Your task to perform on an android device: Set the phone to "Do not disturb". Image 0: 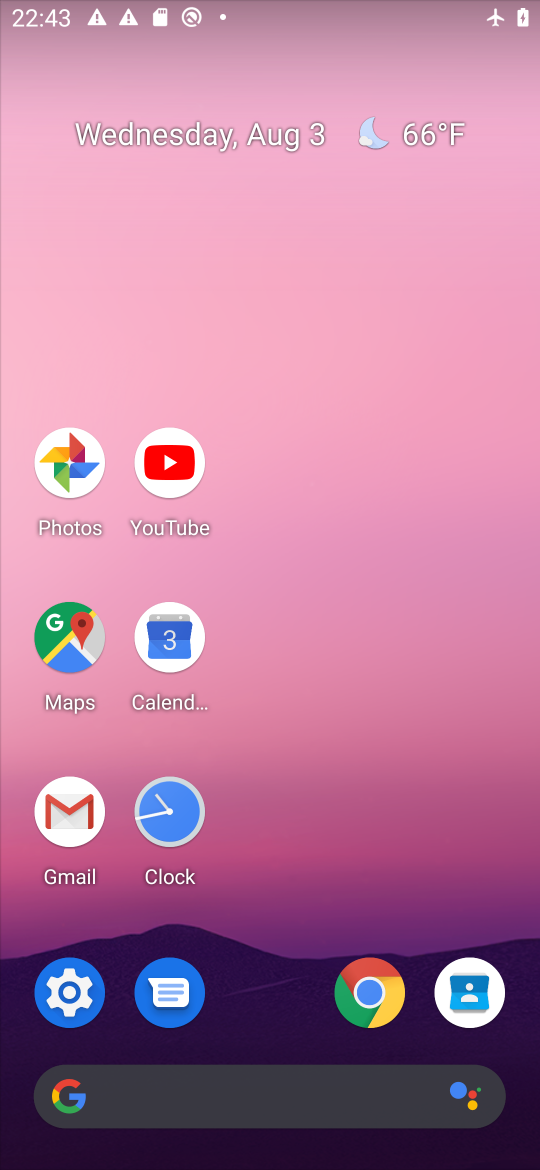
Step 0: click (68, 995)
Your task to perform on an android device: Set the phone to "Do not disturb". Image 1: 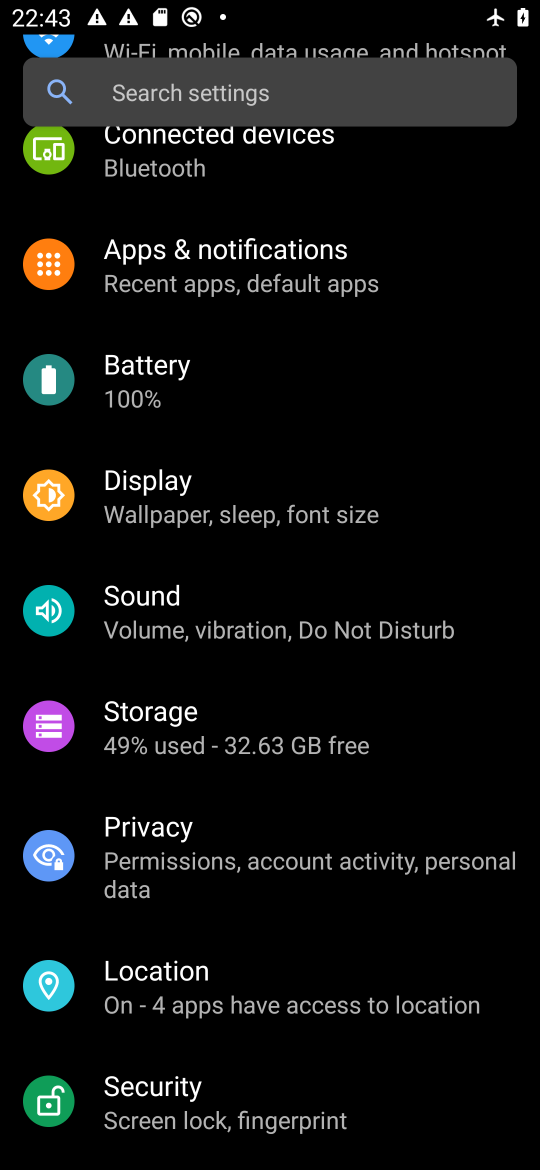
Step 1: click (157, 606)
Your task to perform on an android device: Set the phone to "Do not disturb". Image 2: 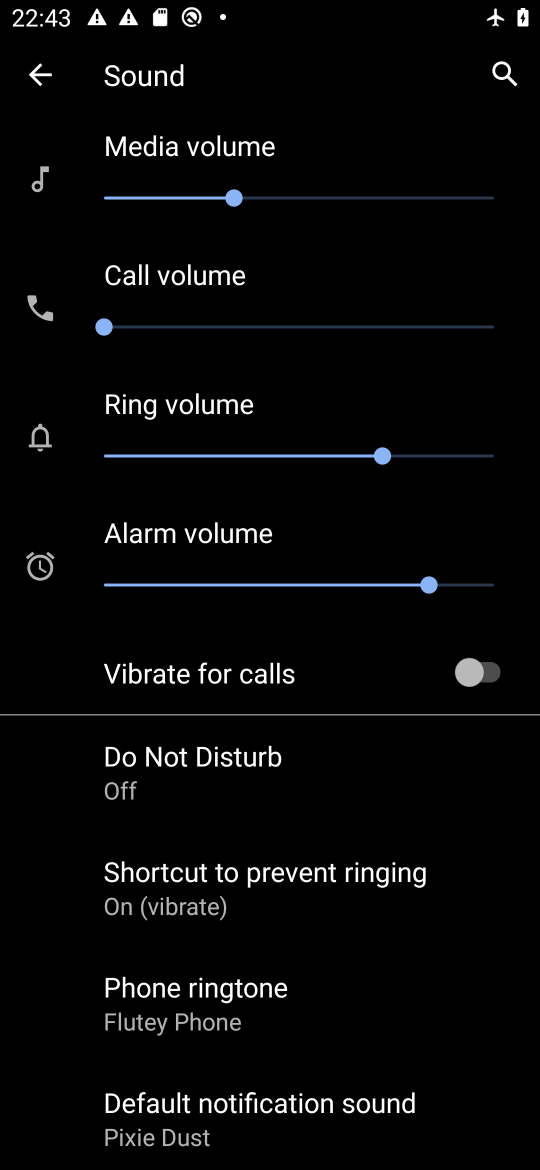
Step 2: click (190, 759)
Your task to perform on an android device: Set the phone to "Do not disturb". Image 3: 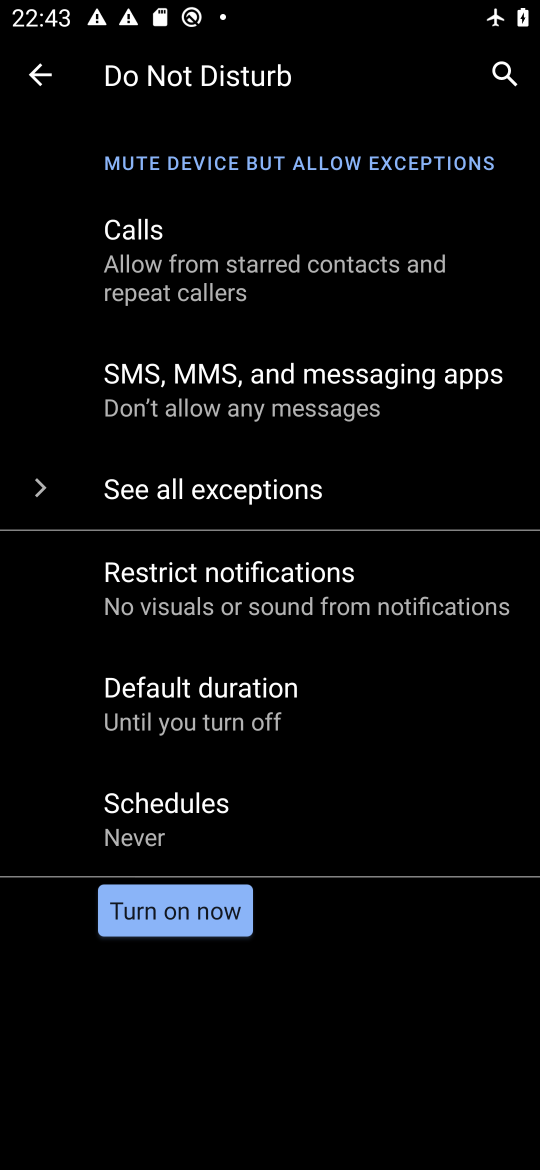
Step 3: click (203, 916)
Your task to perform on an android device: Set the phone to "Do not disturb". Image 4: 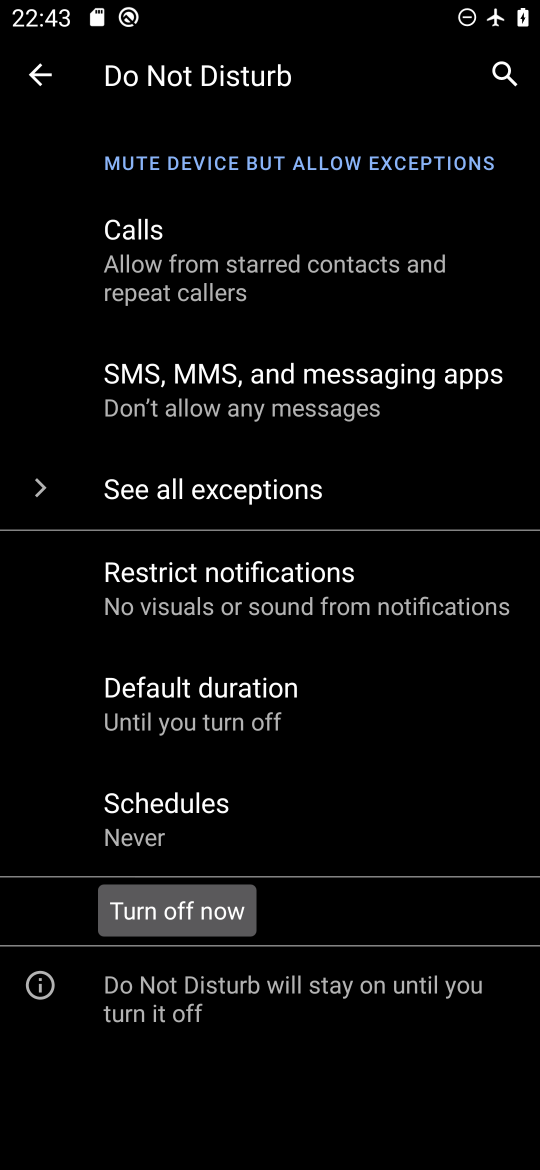
Step 4: task complete